Your task to perform on an android device: turn on airplane mode Image 0: 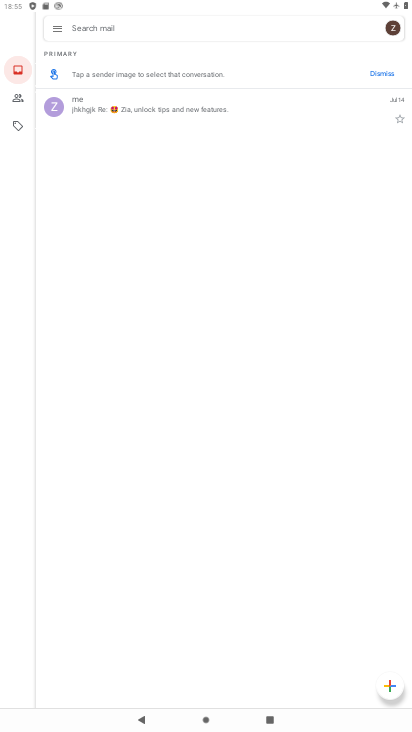
Step 0: press home button
Your task to perform on an android device: turn on airplane mode Image 1: 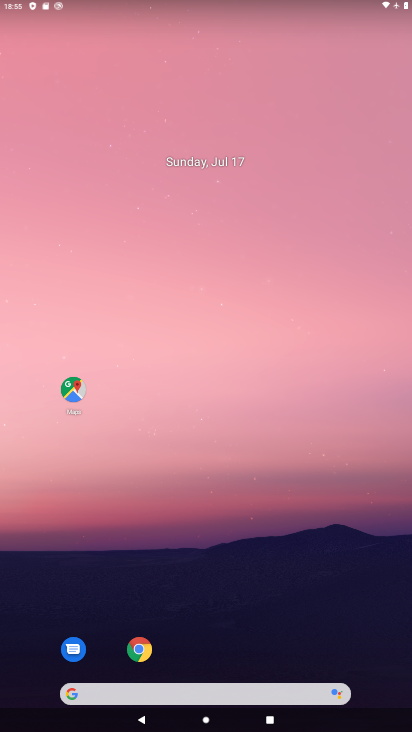
Step 1: drag from (269, 584) to (138, 21)
Your task to perform on an android device: turn on airplane mode Image 2: 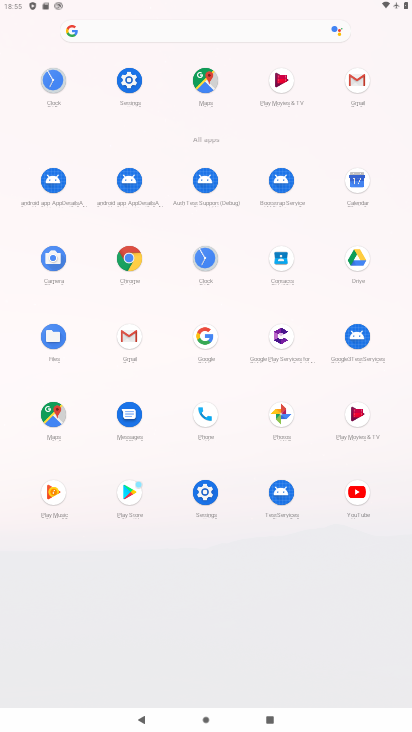
Step 2: click (128, 83)
Your task to perform on an android device: turn on airplane mode Image 3: 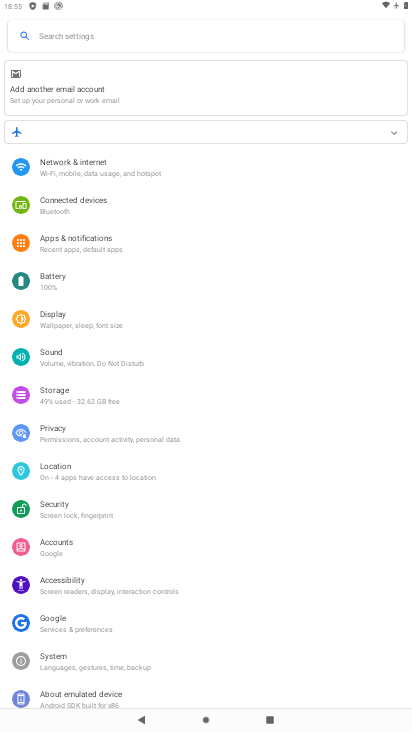
Step 3: click (61, 156)
Your task to perform on an android device: turn on airplane mode Image 4: 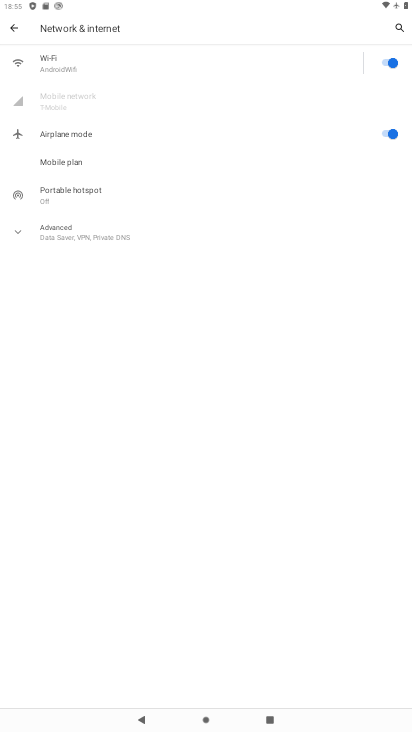
Step 4: task complete